Your task to perform on an android device: Open calendar and show me the second week of next month Image 0: 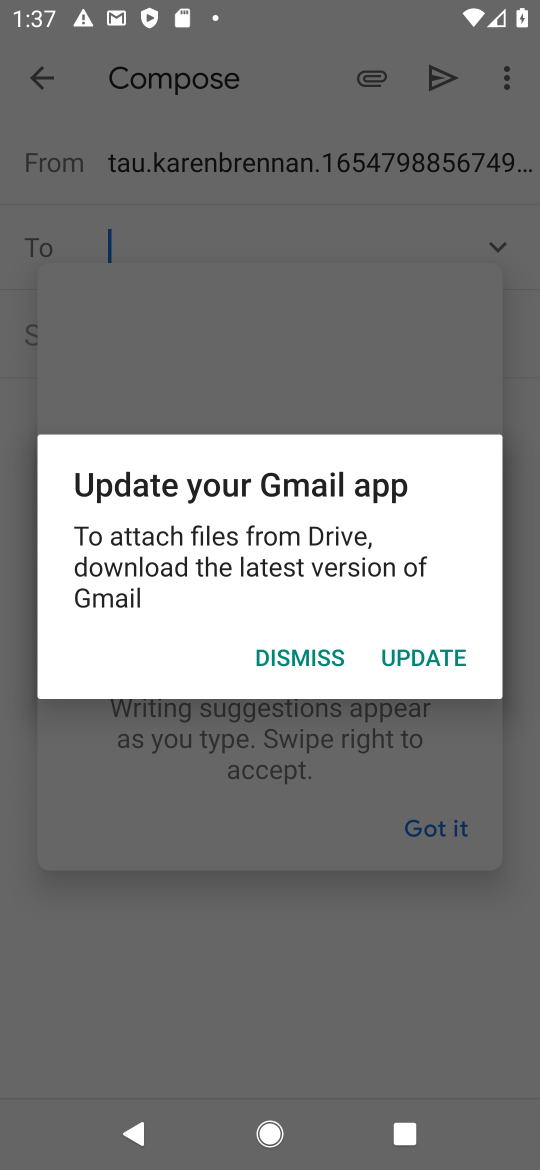
Step 0: press home button
Your task to perform on an android device: Open calendar and show me the second week of next month Image 1: 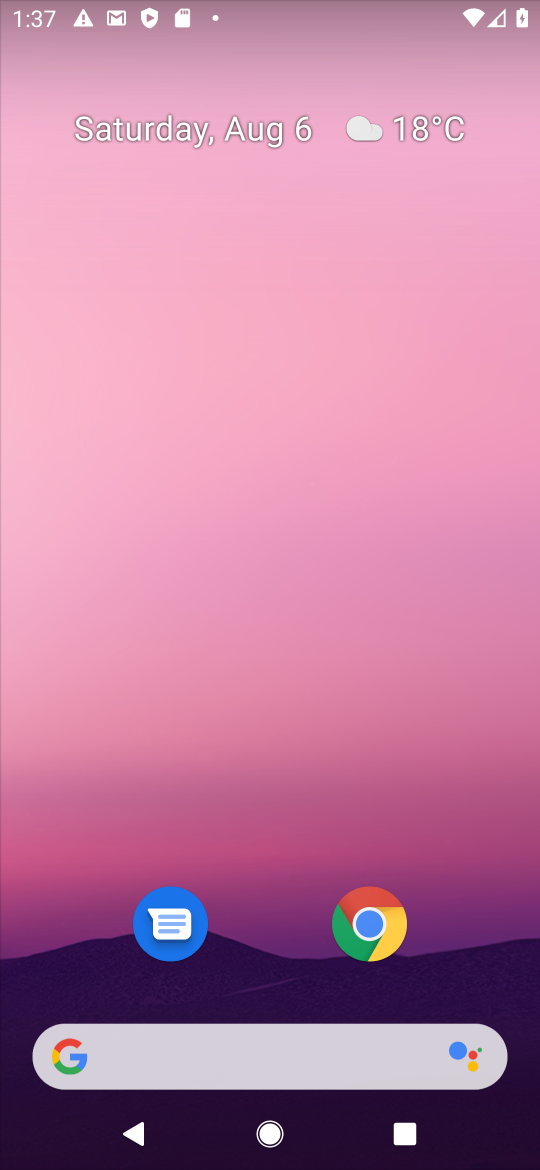
Step 1: drag from (233, 1034) to (163, 36)
Your task to perform on an android device: Open calendar and show me the second week of next month Image 2: 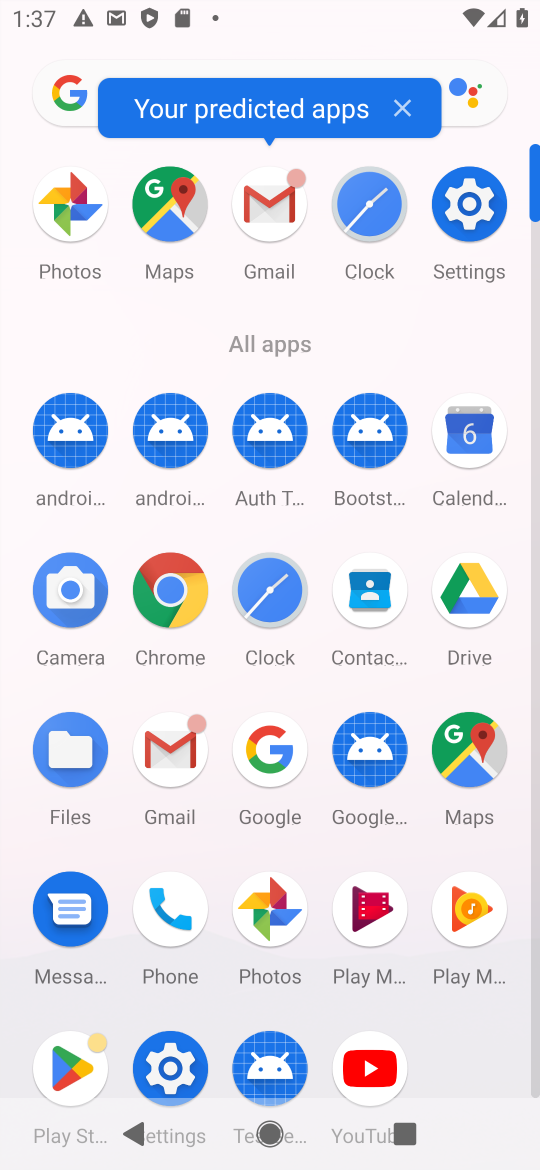
Step 2: click (470, 442)
Your task to perform on an android device: Open calendar and show me the second week of next month Image 3: 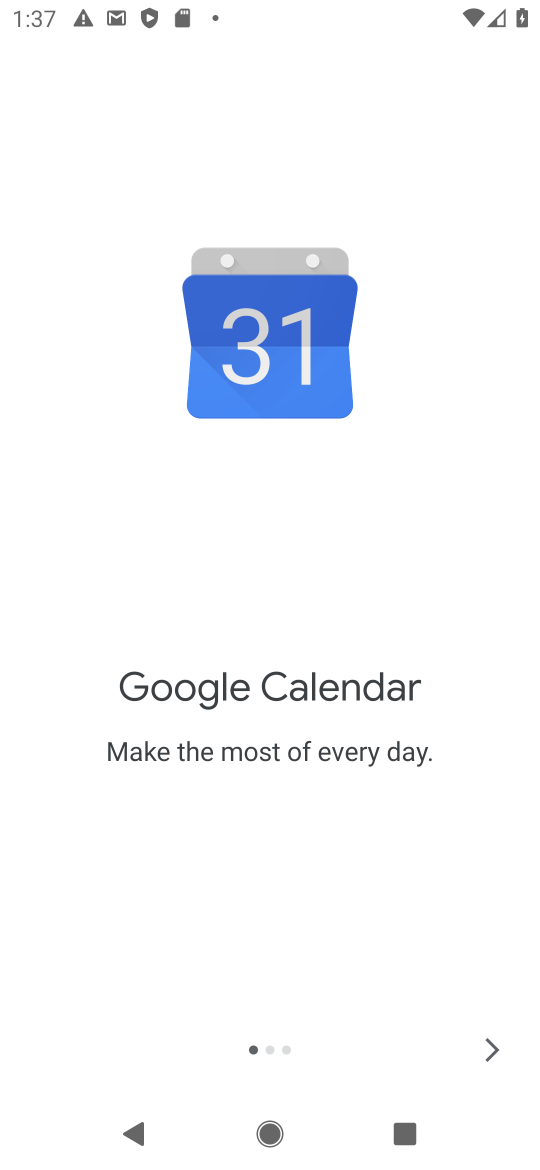
Step 3: click (488, 1031)
Your task to perform on an android device: Open calendar and show me the second week of next month Image 4: 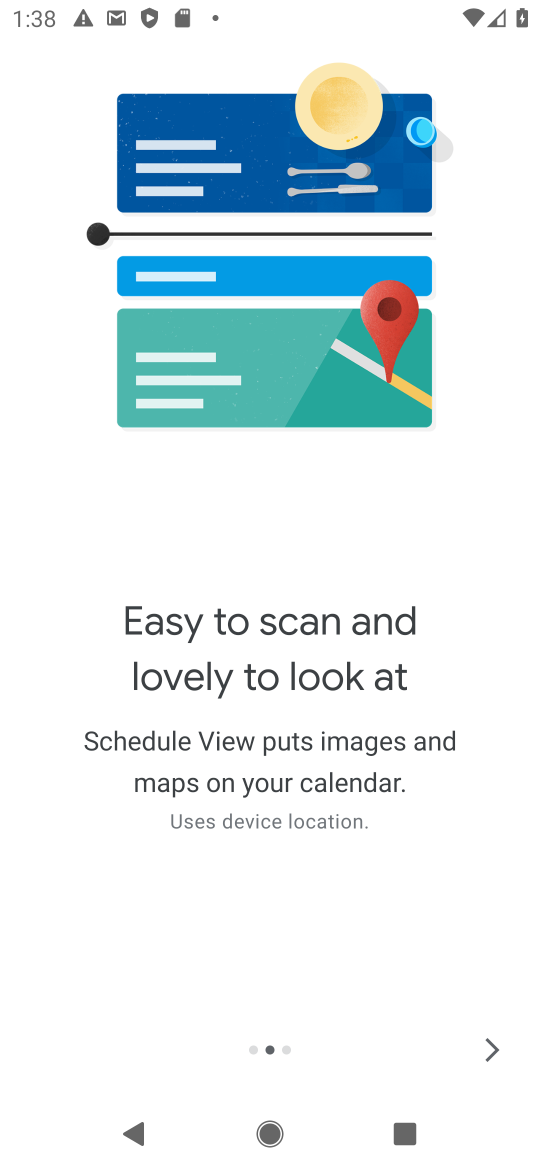
Step 4: click (488, 1038)
Your task to perform on an android device: Open calendar and show me the second week of next month Image 5: 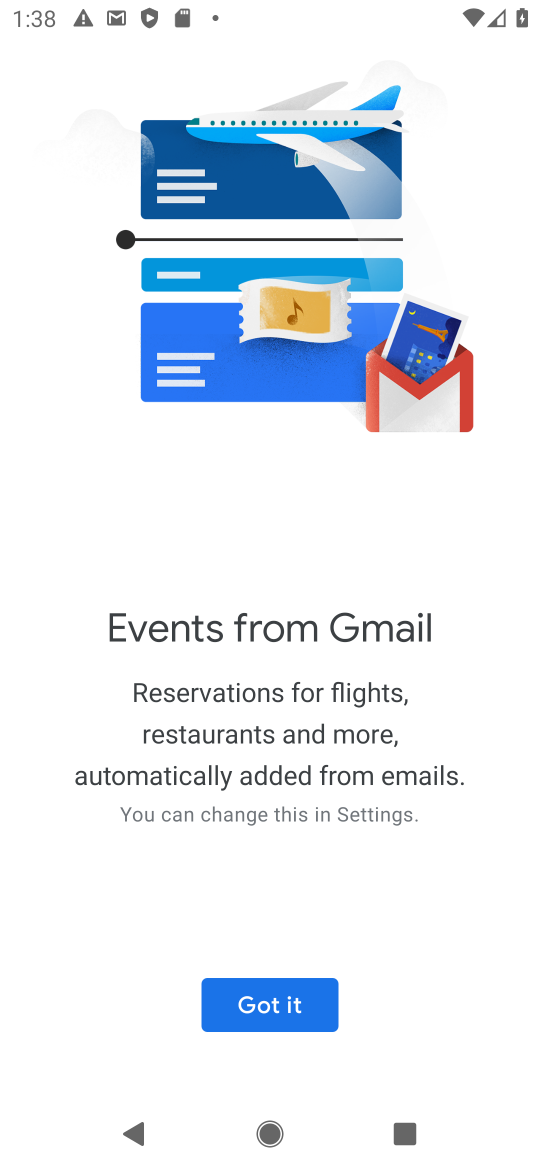
Step 5: click (488, 1038)
Your task to perform on an android device: Open calendar and show me the second week of next month Image 6: 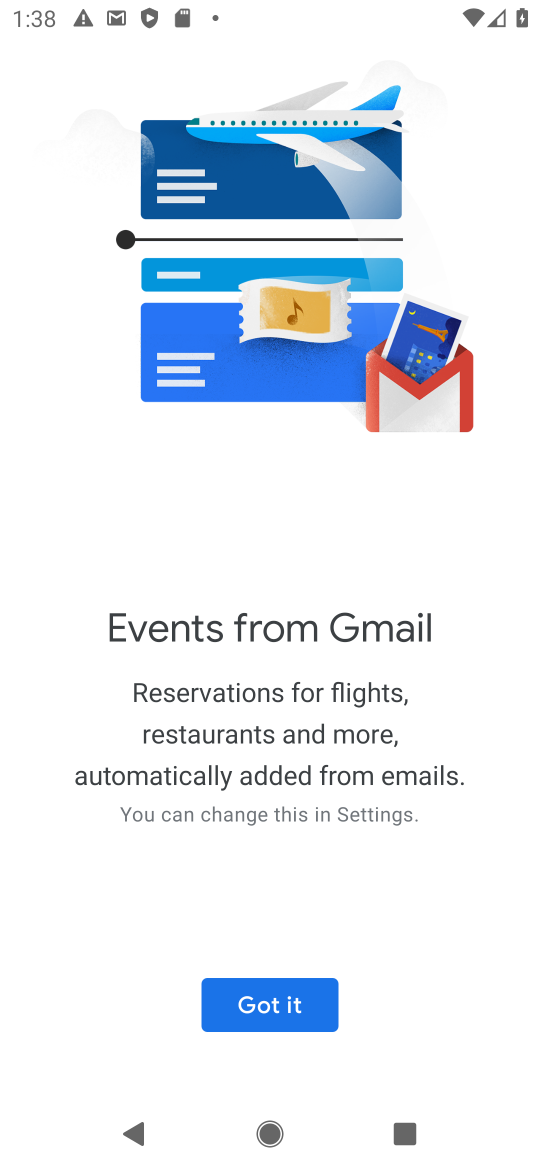
Step 6: click (299, 995)
Your task to perform on an android device: Open calendar and show me the second week of next month Image 7: 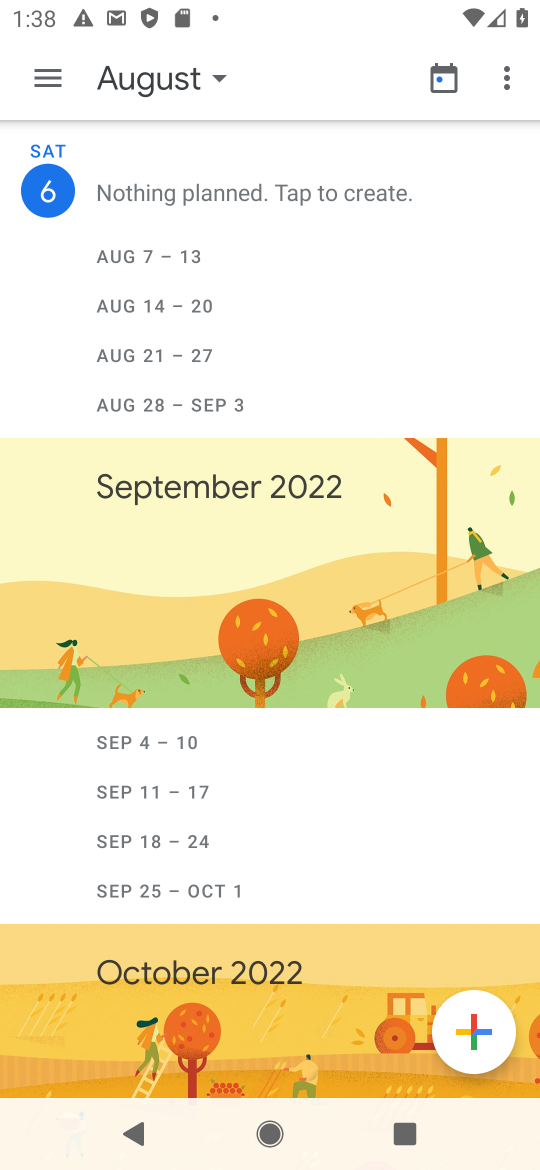
Step 7: click (221, 83)
Your task to perform on an android device: Open calendar and show me the second week of next month Image 8: 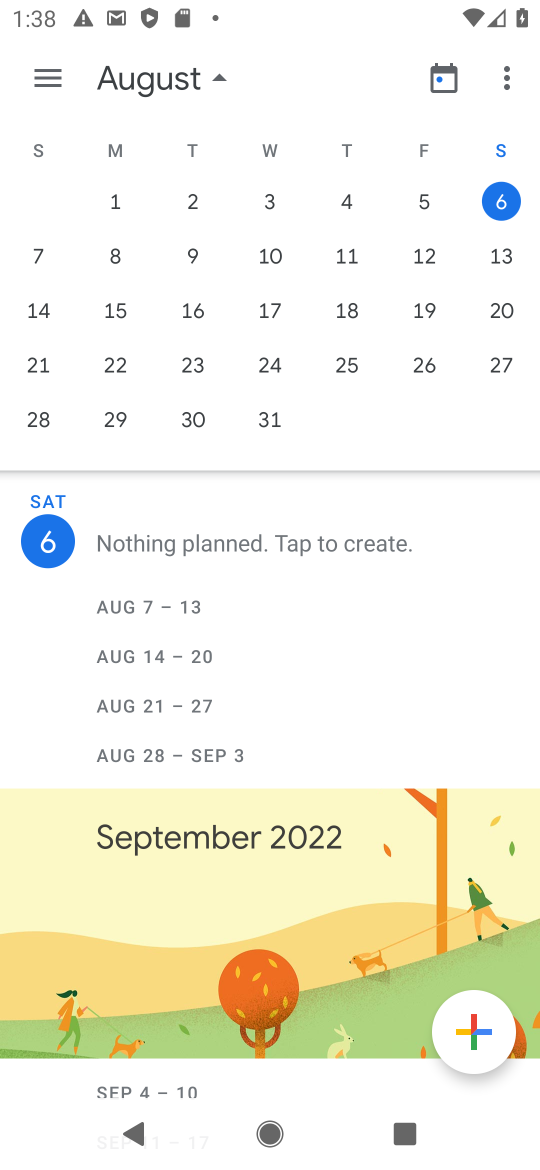
Step 8: drag from (448, 281) to (20, 398)
Your task to perform on an android device: Open calendar and show me the second week of next month Image 9: 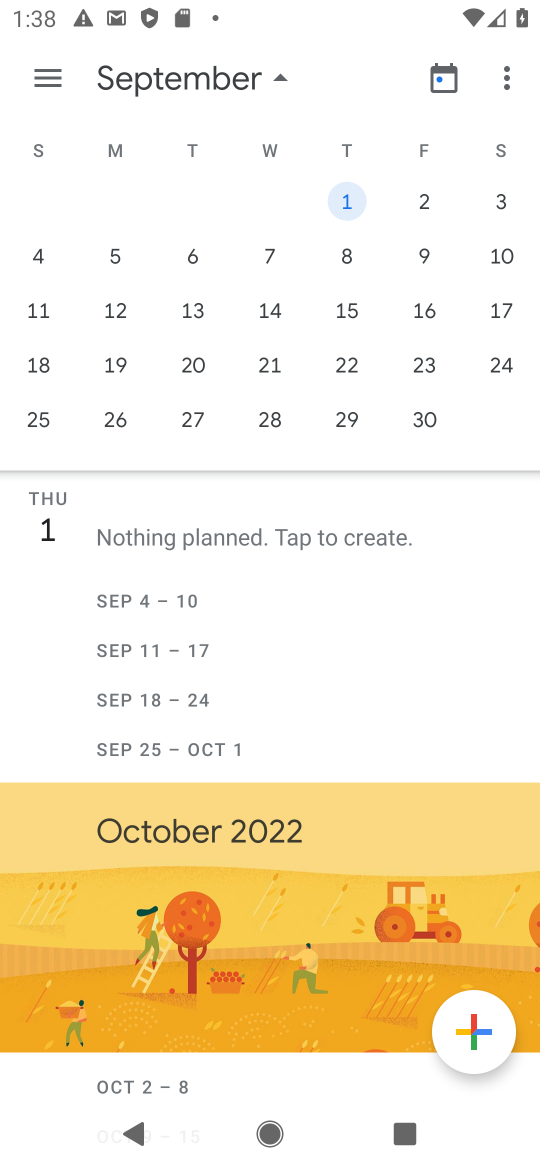
Step 9: click (338, 255)
Your task to perform on an android device: Open calendar and show me the second week of next month Image 10: 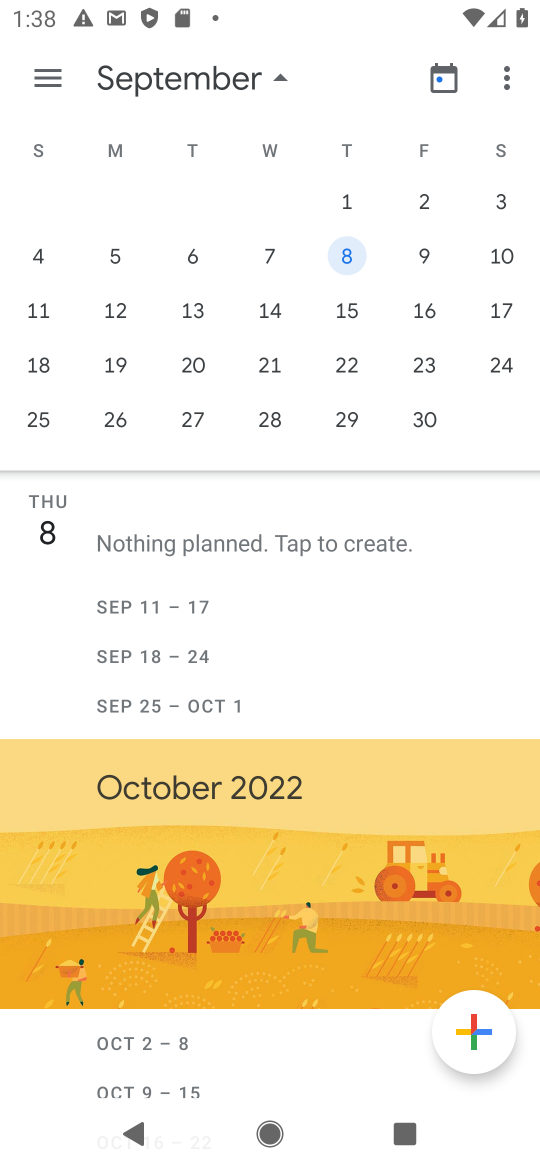
Step 10: task complete